Your task to perform on an android device: toggle data saver in the chrome app Image 0: 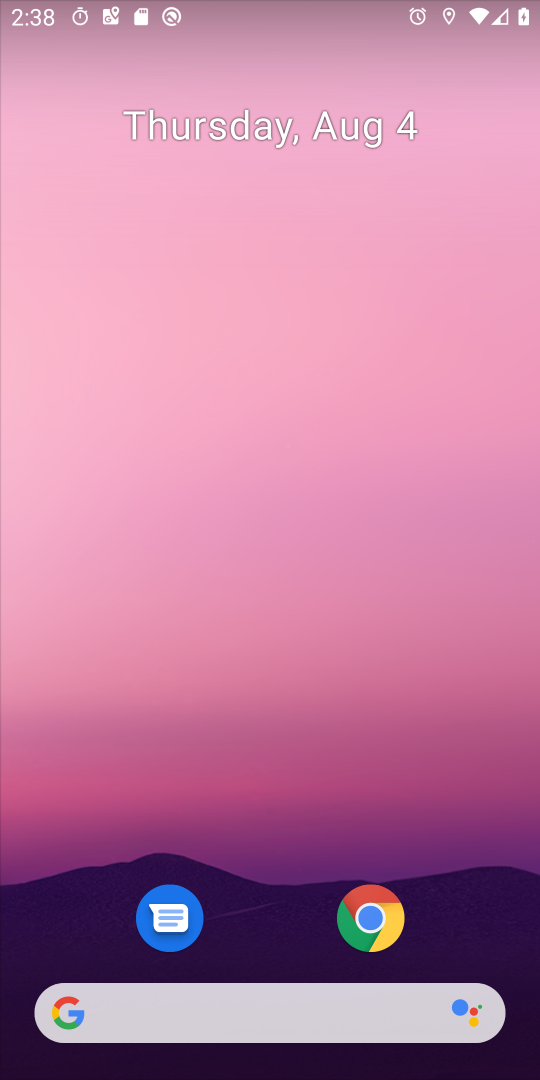
Step 0: click (368, 909)
Your task to perform on an android device: toggle data saver in the chrome app Image 1: 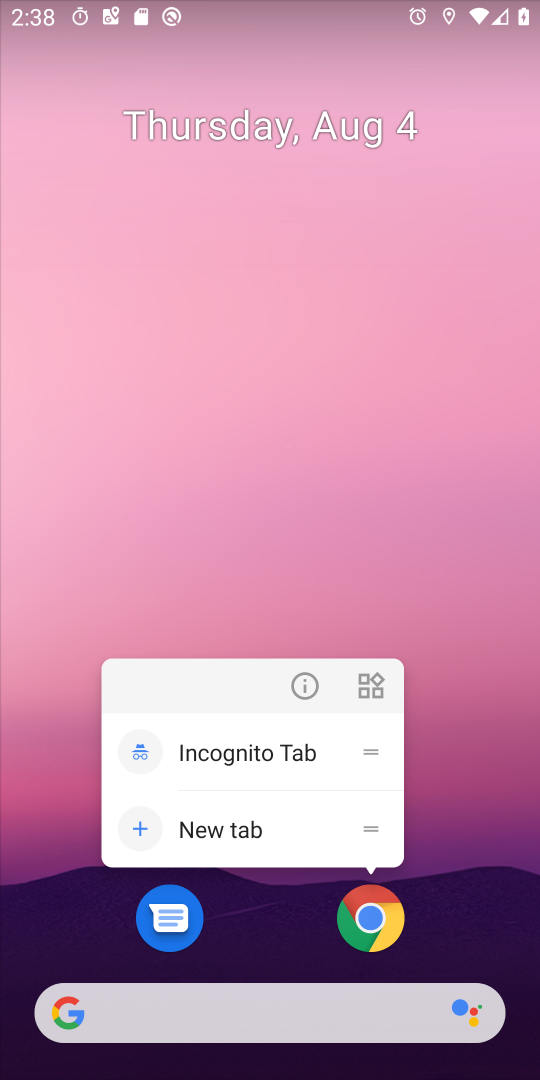
Step 1: click (368, 909)
Your task to perform on an android device: toggle data saver in the chrome app Image 2: 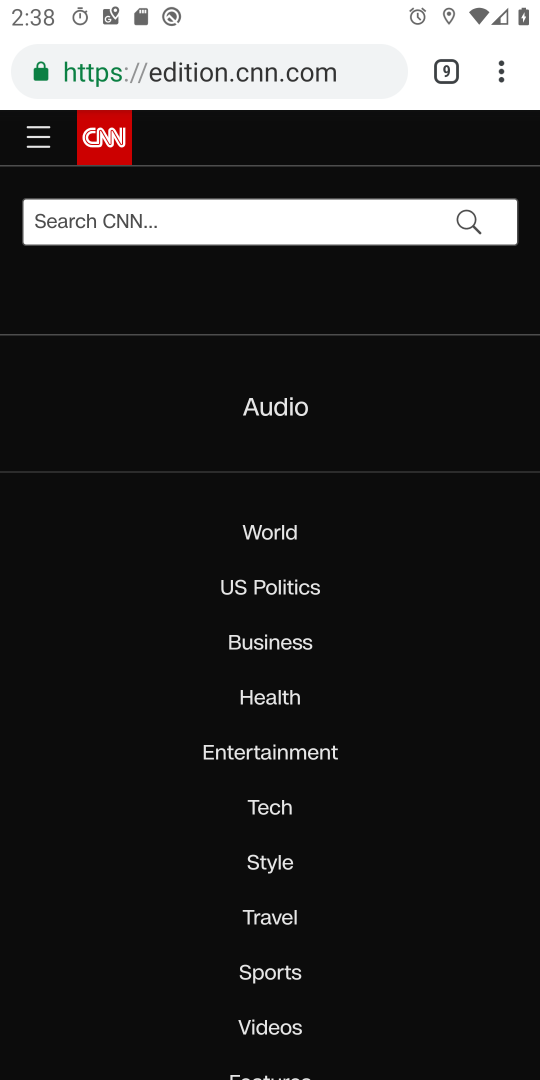
Step 2: click (489, 88)
Your task to perform on an android device: toggle data saver in the chrome app Image 3: 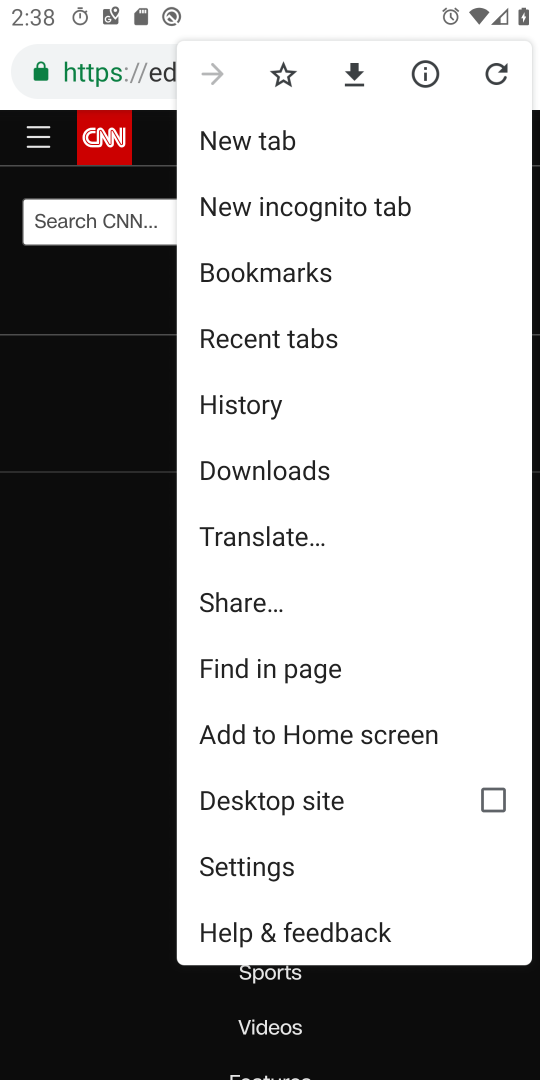
Step 3: click (261, 862)
Your task to perform on an android device: toggle data saver in the chrome app Image 4: 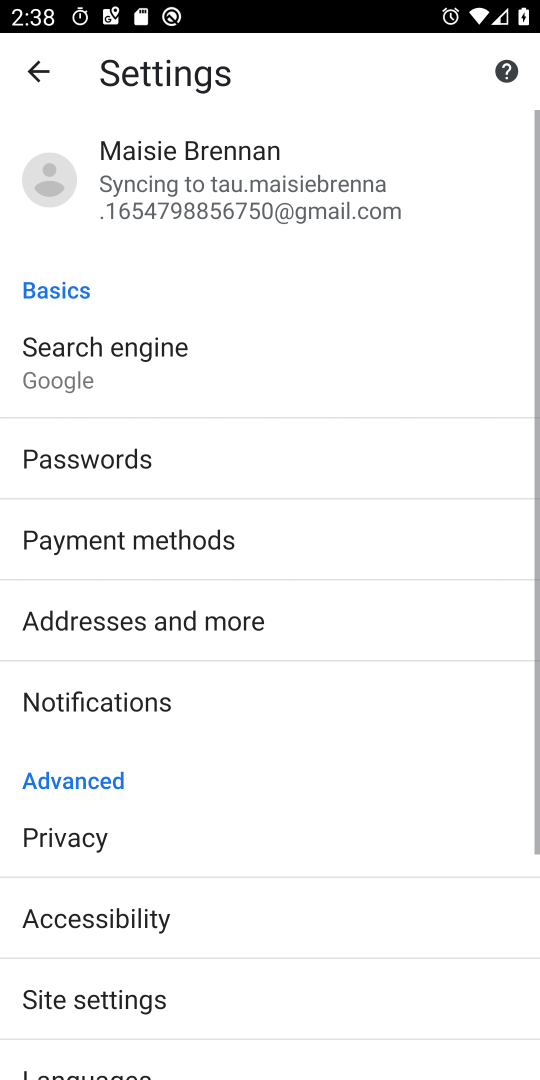
Step 4: drag from (199, 926) to (195, 417)
Your task to perform on an android device: toggle data saver in the chrome app Image 5: 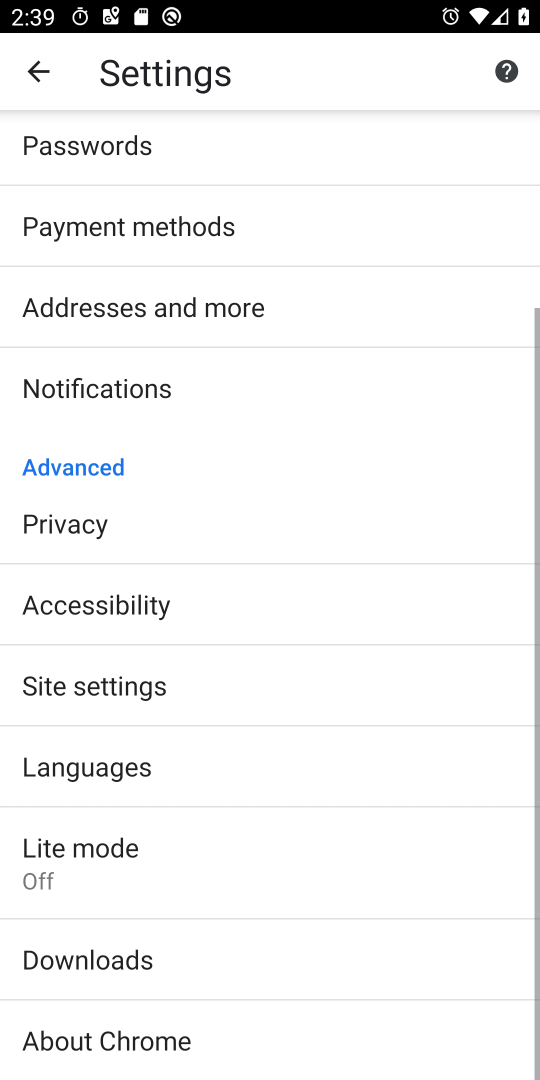
Step 5: click (126, 844)
Your task to perform on an android device: toggle data saver in the chrome app Image 6: 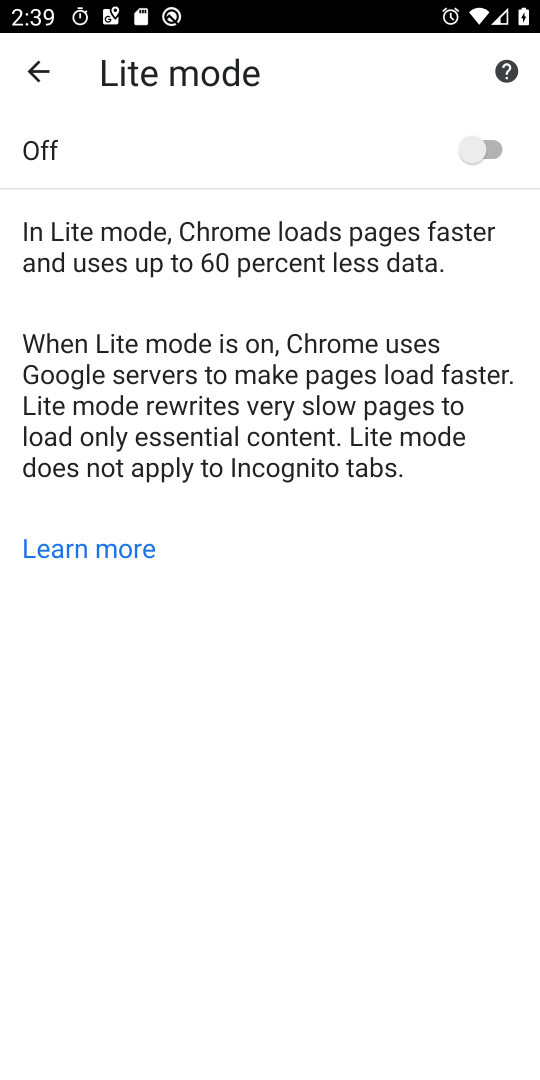
Step 6: click (488, 160)
Your task to perform on an android device: toggle data saver in the chrome app Image 7: 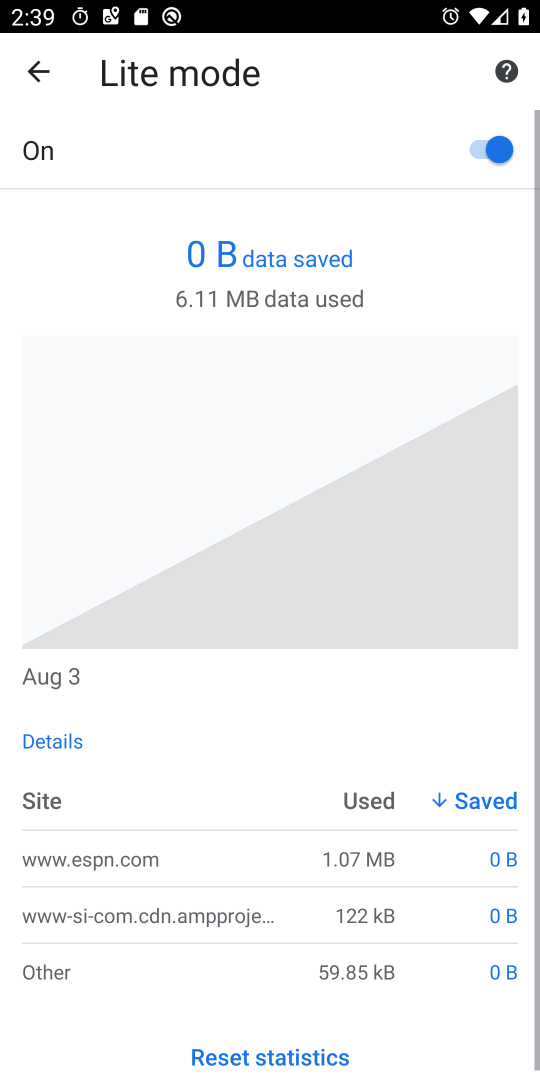
Step 7: task complete